Your task to perform on an android device: Check the weather Image 0: 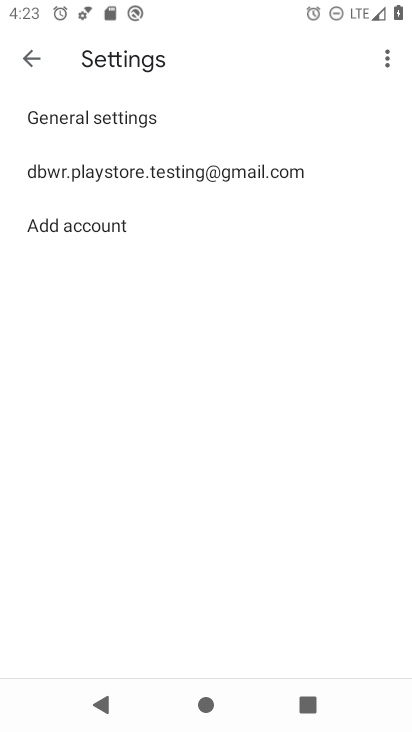
Step 0: press home button
Your task to perform on an android device: Check the weather Image 1: 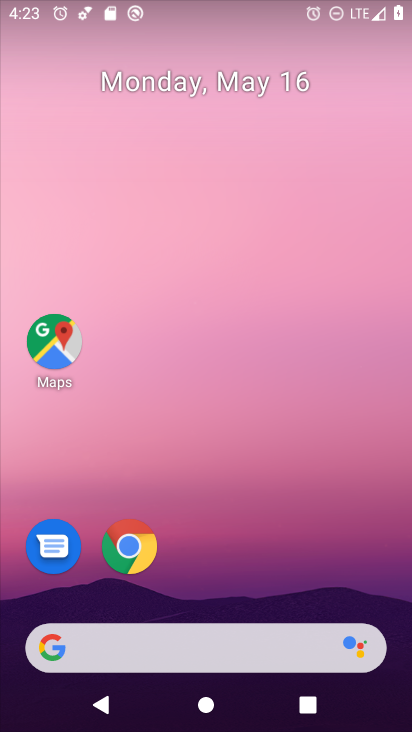
Step 1: drag from (340, 583) to (336, 111)
Your task to perform on an android device: Check the weather Image 2: 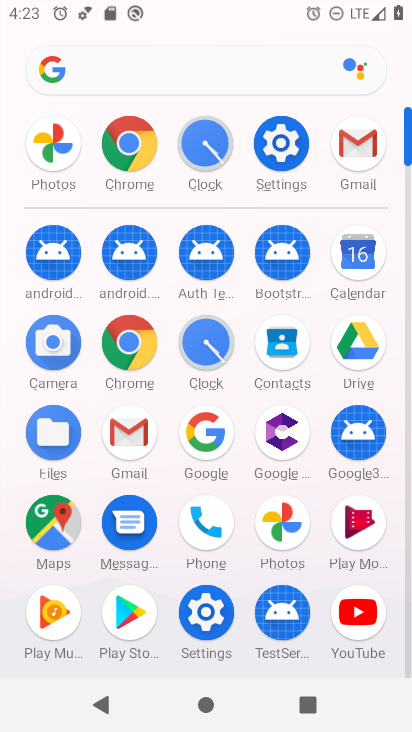
Step 2: press home button
Your task to perform on an android device: Check the weather Image 3: 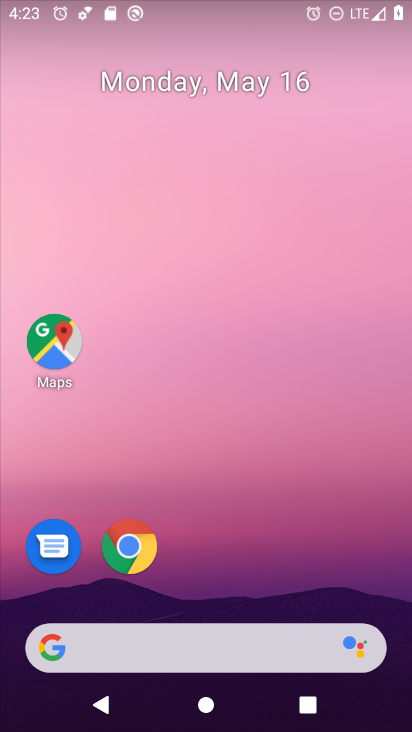
Step 3: click (231, 647)
Your task to perform on an android device: Check the weather Image 4: 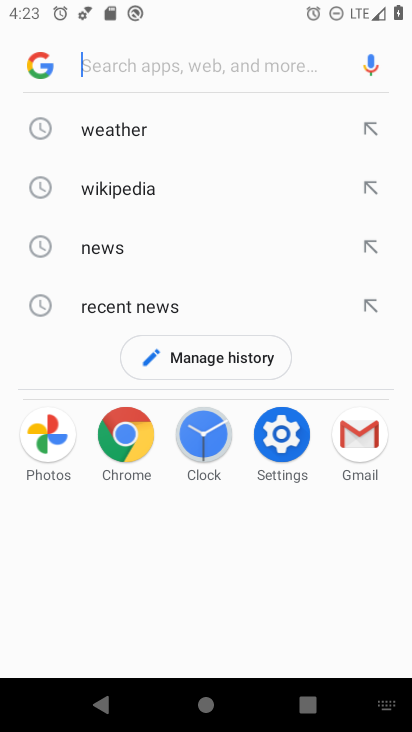
Step 4: click (136, 125)
Your task to perform on an android device: Check the weather Image 5: 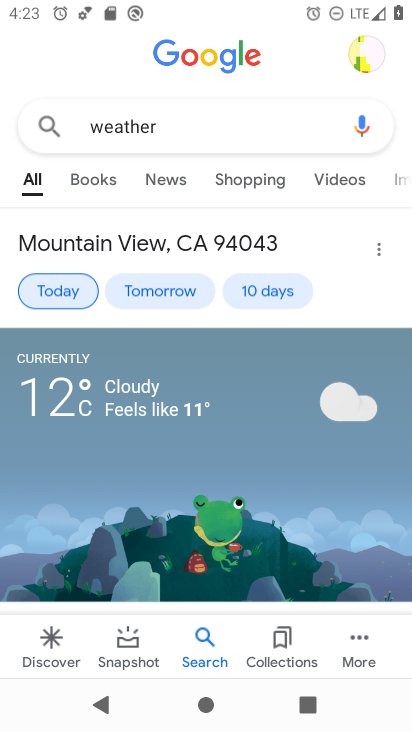
Step 5: task complete